Your task to perform on an android device: Open ESPN.com Image 0: 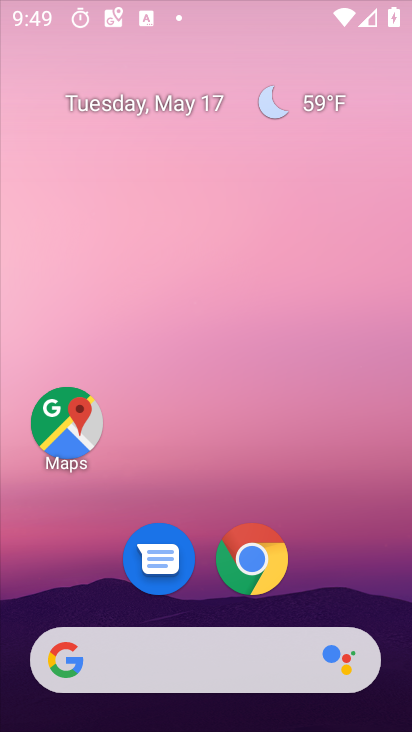
Step 0: press home button
Your task to perform on an android device: Open ESPN.com Image 1: 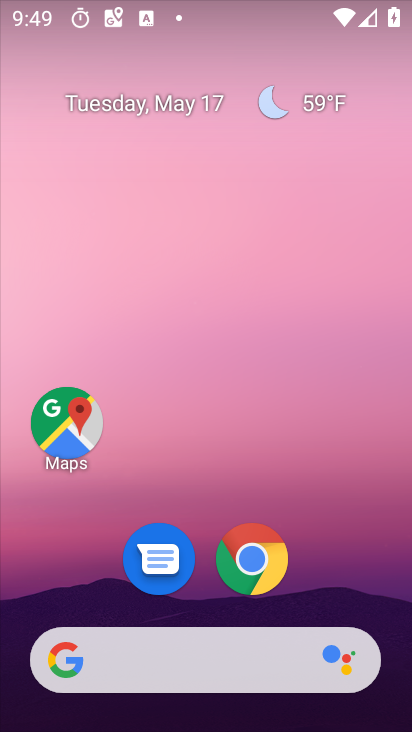
Step 1: drag from (242, 605) to (274, 64)
Your task to perform on an android device: Open ESPN.com Image 2: 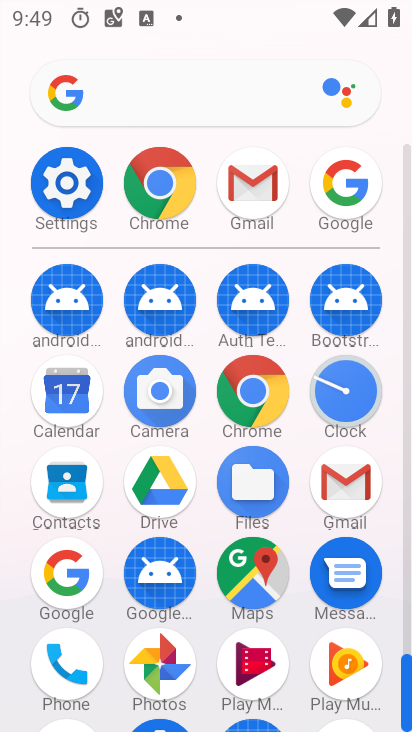
Step 2: click (178, 227)
Your task to perform on an android device: Open ESPN.com Image 3: 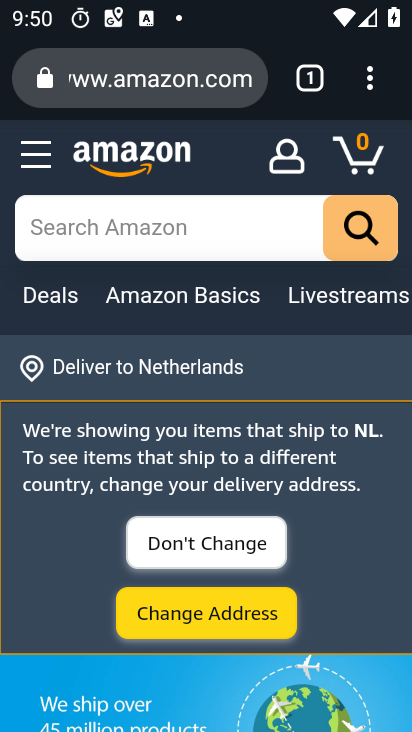
Step 3: drag from (205, 554) to (216, 249)
Your task to perform on an android device: Open ESPN.com Image 4: 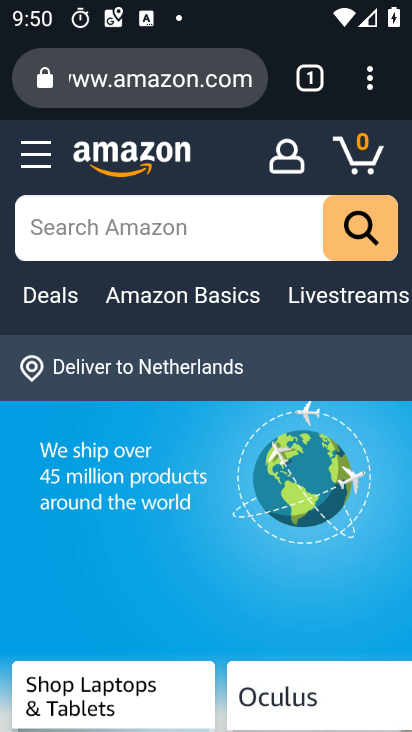
Step 4: click (156, 87)
Your task to perform on an android device: Open ESPN.com Image 5: 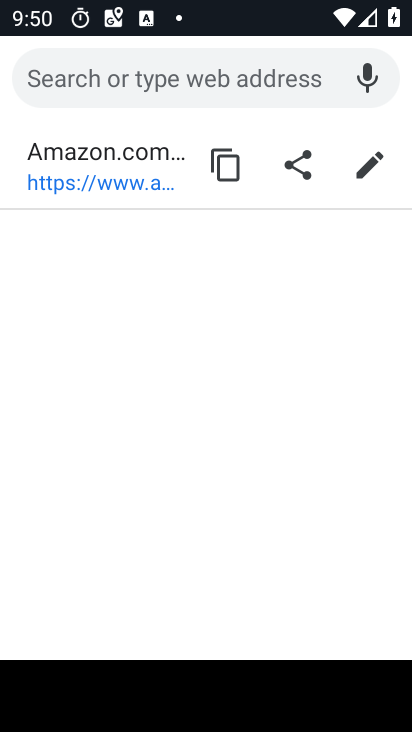
Step 5: type "espn"
Your task to perform on an android device: Open ESPN.com Image 6: 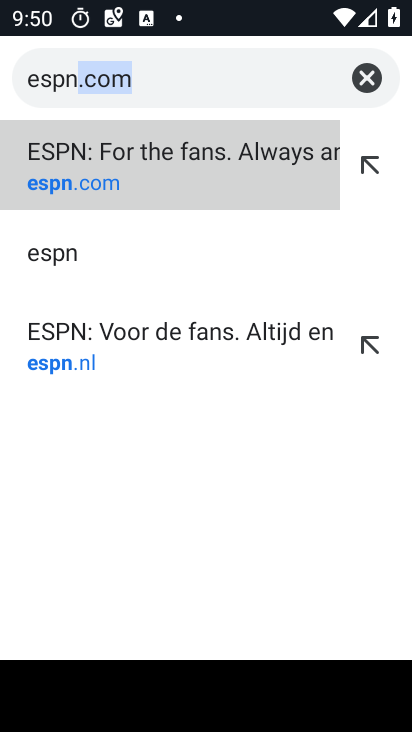
Step 6: click (155, 191)
Your task to perform on an android device: Open ESPN.com Image 7: 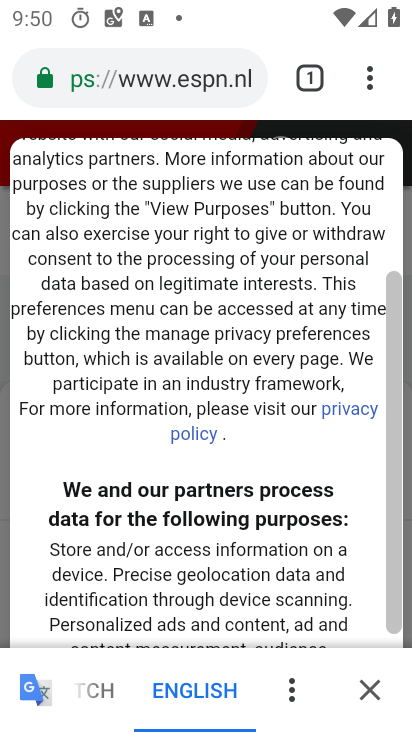
Step 7: task complete